Your task to perform on an android device: Show me productivity apps on the Play Store Image 0: 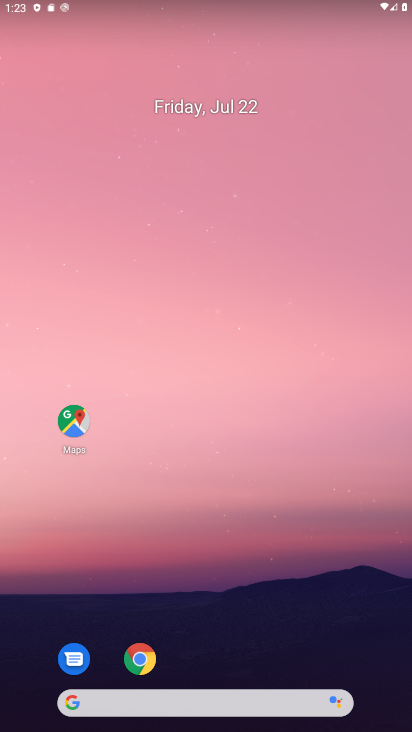
Step 0: drag from (287, 653) to (283, 105)
Your task to perform on an android device: Show me productivity apps on the Play Store Image 1: 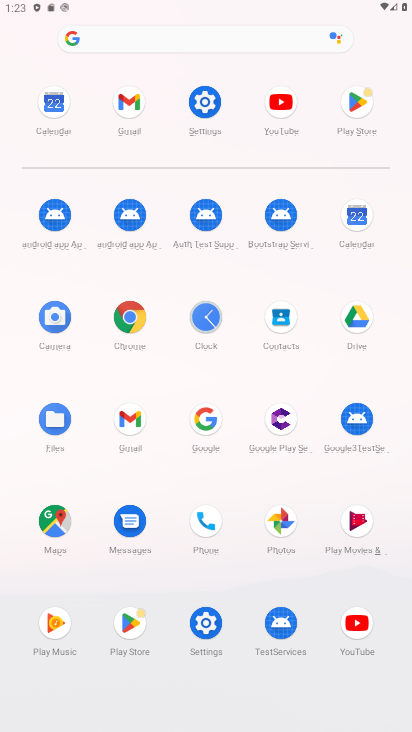
Step 1: click (357, 105)
Your task to perform on an android device: Show me productivity apps on the Play Store Image 2: 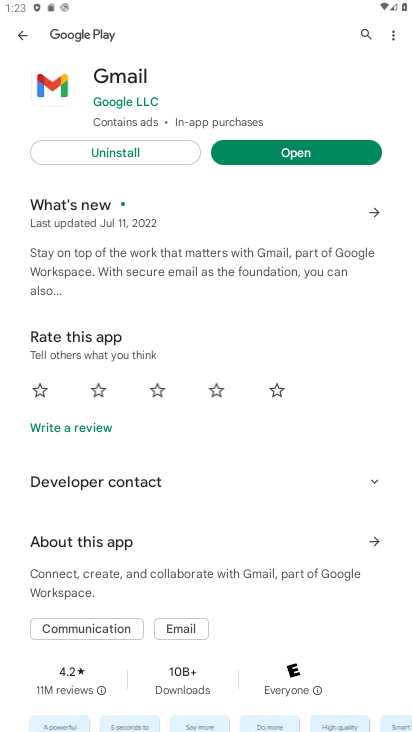
Step 2: task complete